Your task to perform on an android device: Open Amazon Image 0: 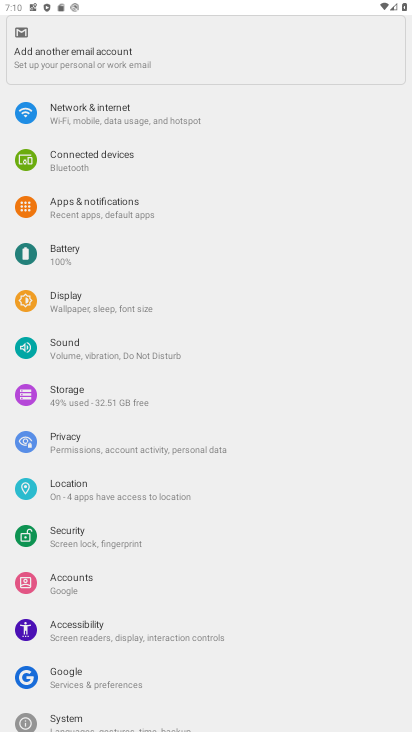
Step 0: press home button
Your task to perform on an android device: Open Amazon Image 1: 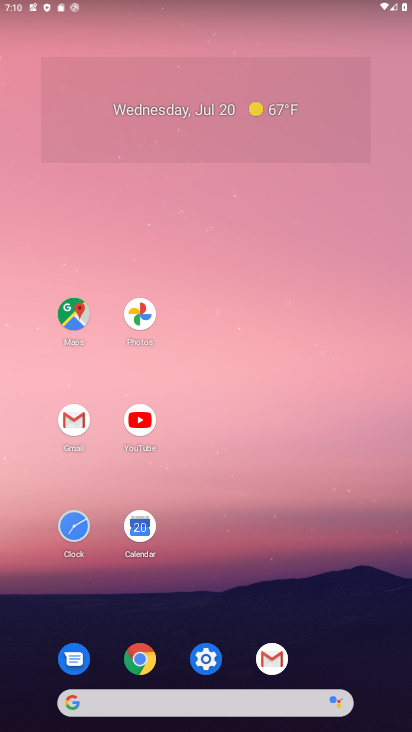
Step 1: click (142, 655)
Your task to perform on an android device: Open Amazon Image 2: 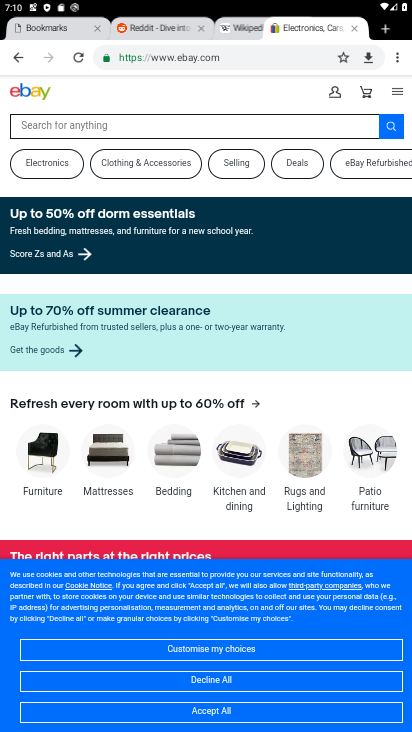
Step 2: click (399, 53)
Your task to perform on an android device: Open Amazon Image 3: 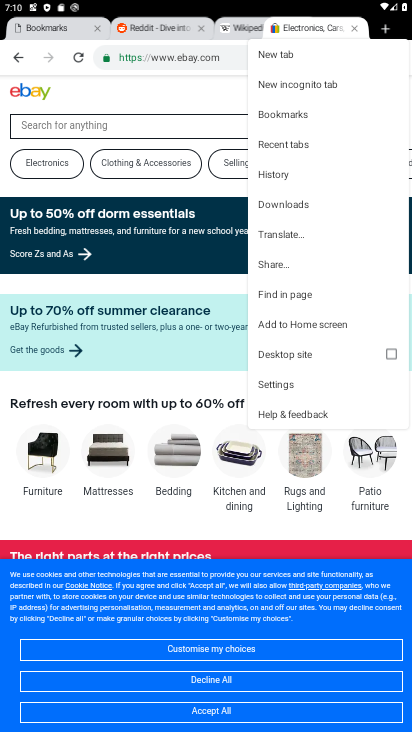
Step 3: click (291, 55)
Your task to perform on an android device: Open Amazon Image 4: 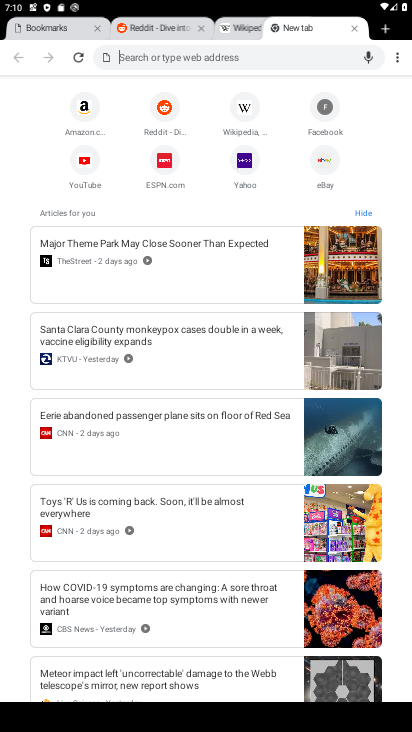
Step 4: click (76, 109)
Your task to perform on an android device: Open Amazon Image 5: 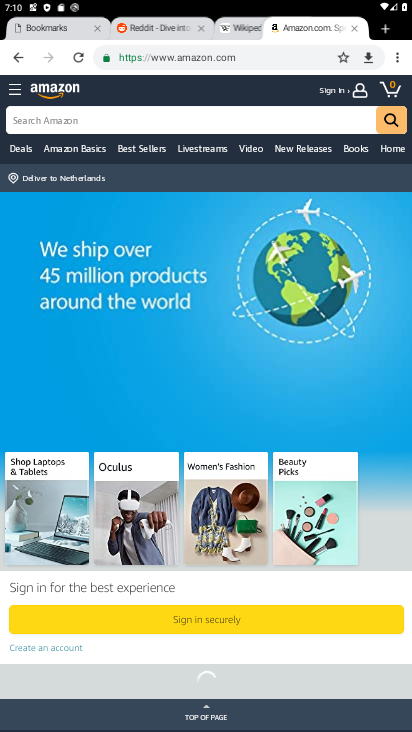
Step 5: task complete